Your task to perform on an android device: turn off picture-in-picture Image 0: 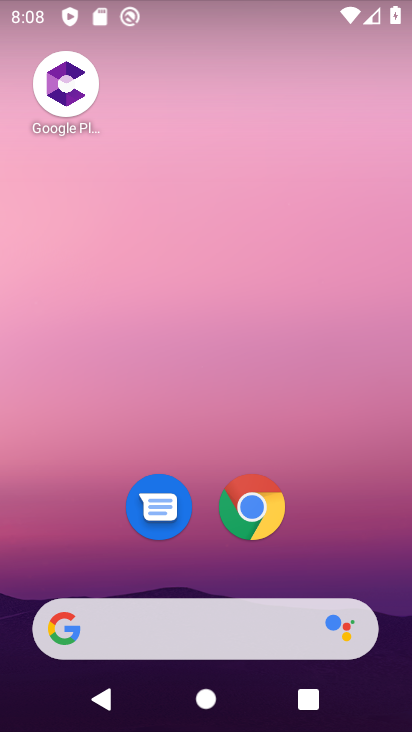
Step 0: drag from (177, 503) to (286, 50)
Your task to perform on an android device: turn off picture-in-picture Image 1: 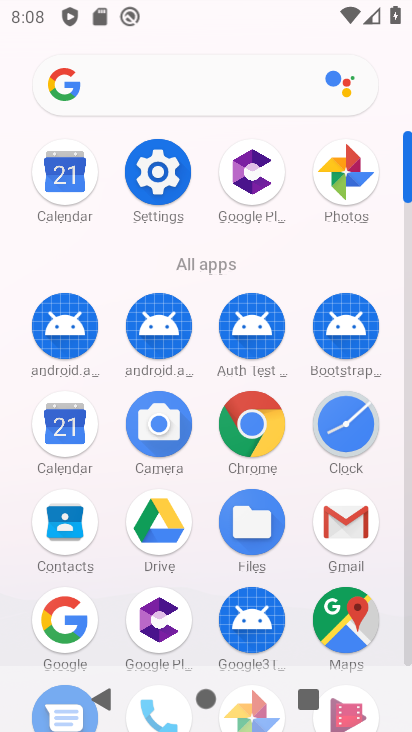
Step 1: click (164, 172)
Your task to perform on an android device: turn off picture-in-picture Image 2: 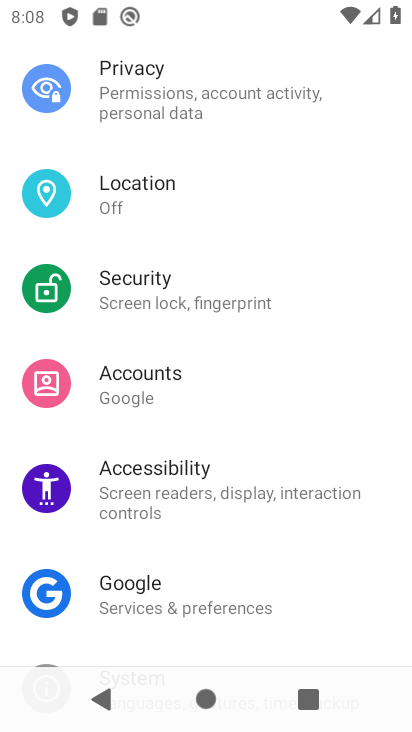
Step 2: drag from (188, 249) to (166, 704)
Your task to perform on an android device: turn off picture-in-picture Image 3: 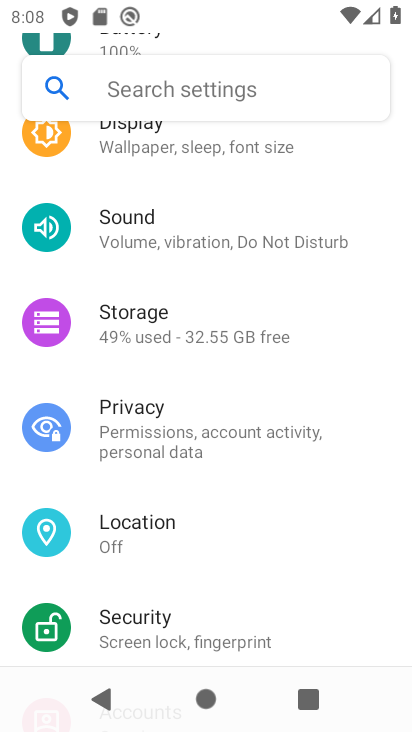
Step 3: drag from (275, 184) to (193, 669)
Your task to perform on an android device: turn off picture-in-picture Image 4: 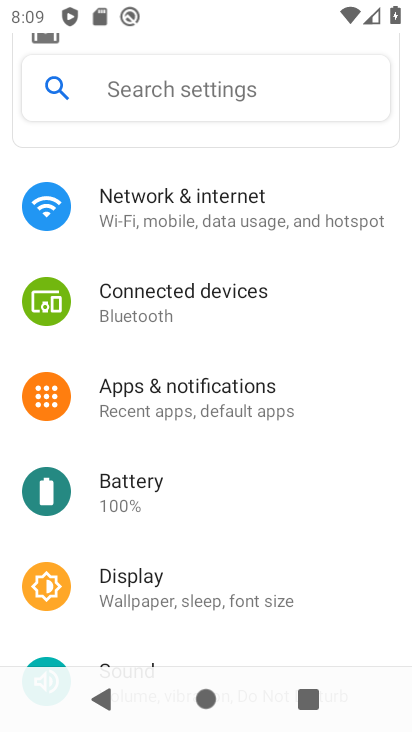
Step 4: click (228, 390)
Your task to perform on an android device: turn off picture-in-picture Image 5: 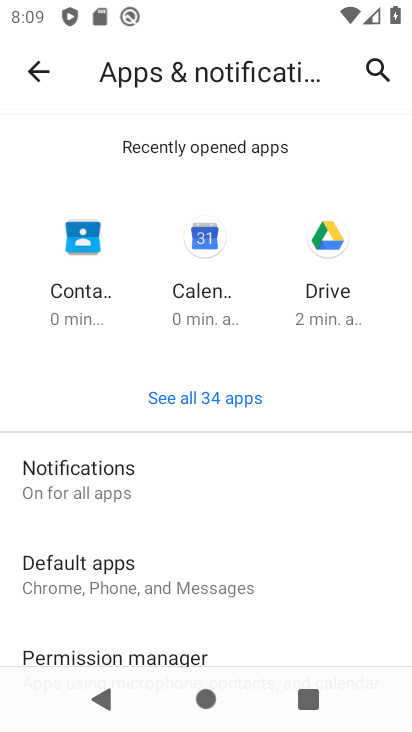
Step 5: drag from (209, 603) to (344, 163)
Your task to perform on an android device: turn off picture-in-picture Image 6: 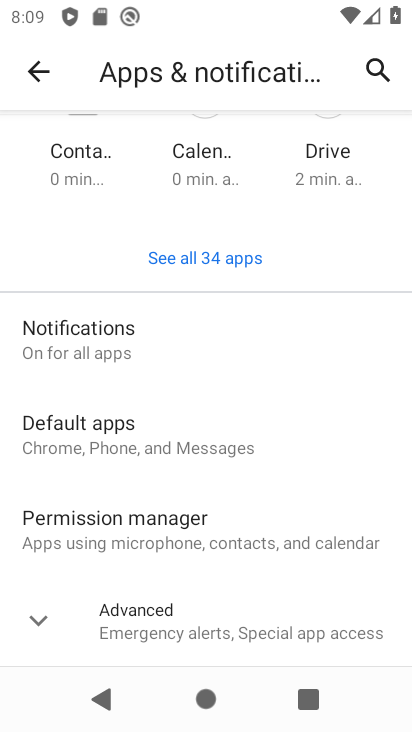
Step 6: drag from (242, 564) to (318, 162)
Your task to perform on an android device: turn off picture-in-picture Image 7: 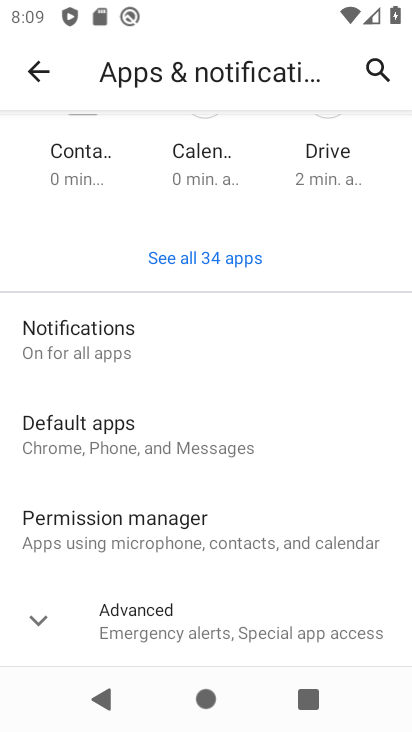
Step 7: click (161, 622)
Your task to perform on an android device: turn off picture-in-picture Image 8: 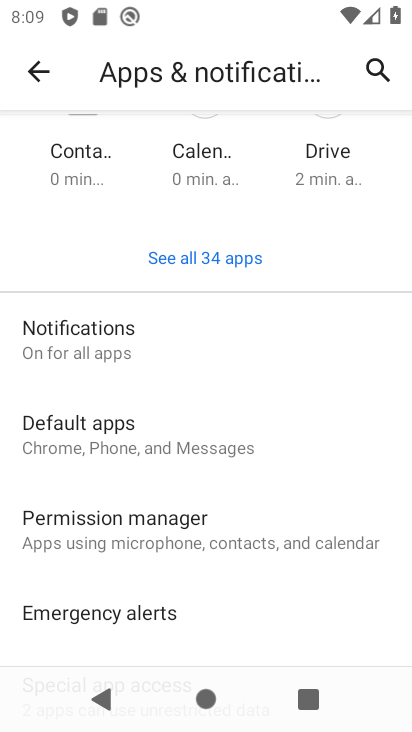
Step 8: drag from (234, 499) to (322, 160)
Your task to perform on an android device: turn off picture-in-picture Image 9: 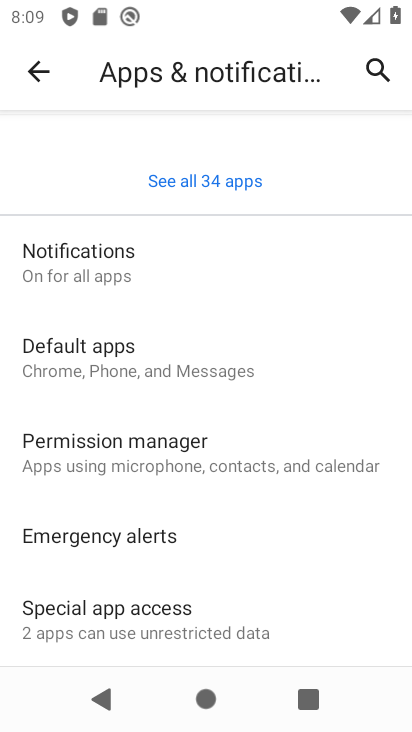
Step 9: click (192, 610)
Your task to perform on an android device: turn off picture-in-picture Image 10: 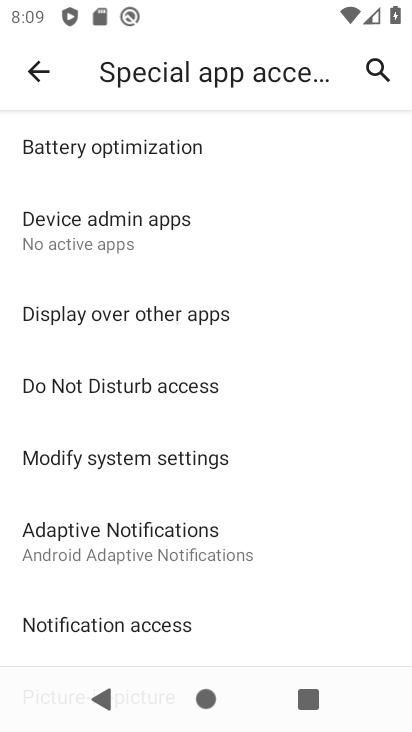
Step 10: drag from (187, 502) to (281, 50)
Your task to perform on an android device: turn off picture-in-picture Image 11: 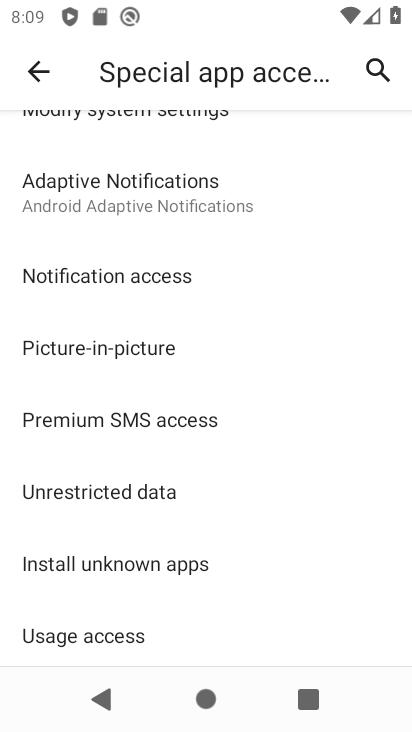
Step 11: click (104, 339)
Your task to perform on an android device: turn off picture-in-picture Image 12: 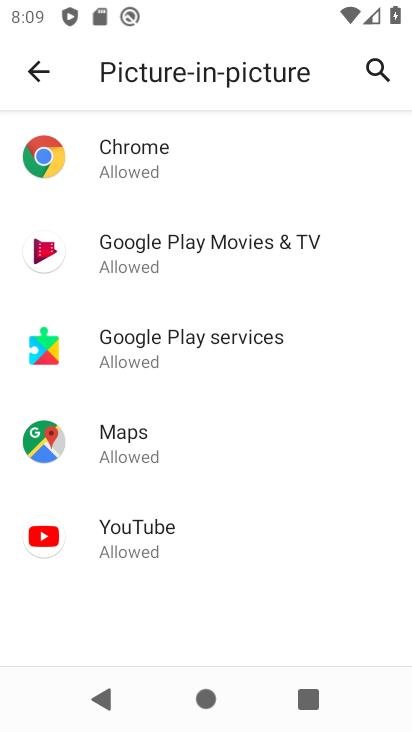
Step 12: click (158, 142)
Your task to perform on an android device: turn off picture-in-picture Image 13: 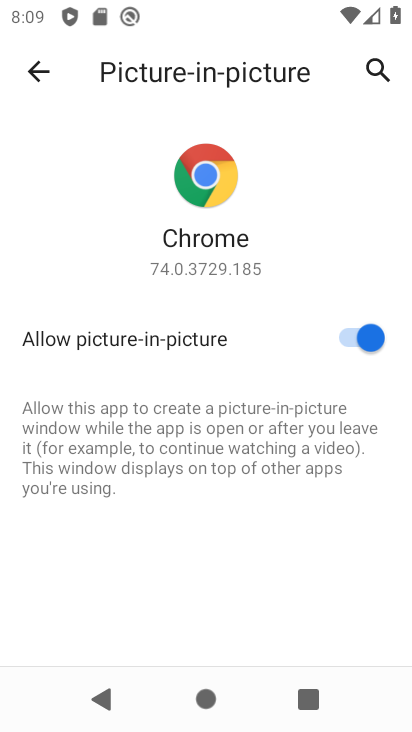
Step 13: click (365, 338)
Your task to perform on an android device: turn off picture-in-picture Image 14: 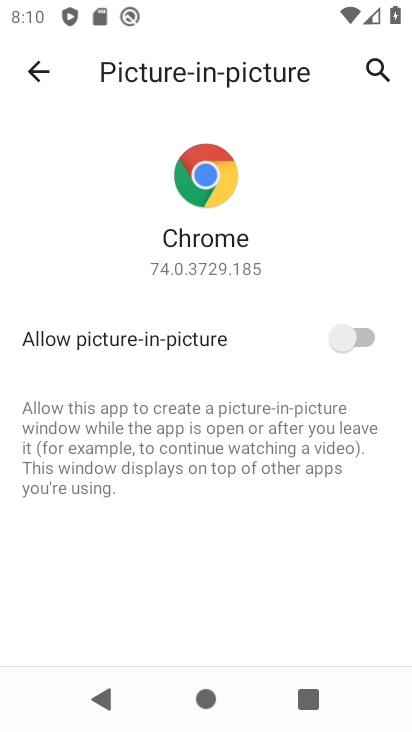
Step 14: task complete